Your task to perform on an android device: Open internet settings Image 0: 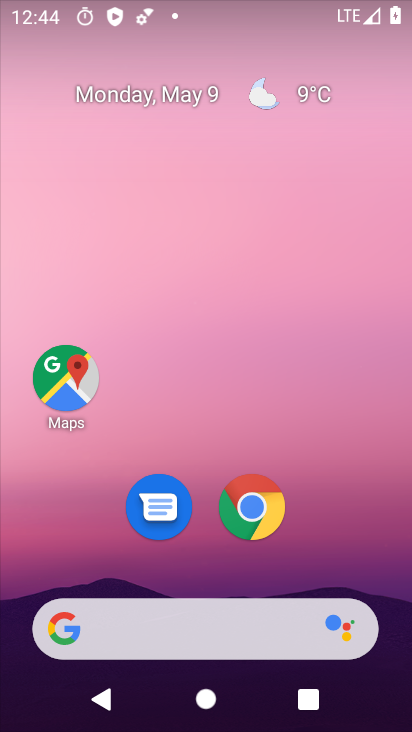
Step 0: drag from (228, 723) to (212, 14)
Your task to perform on an android device: Open internet settings Image 1: 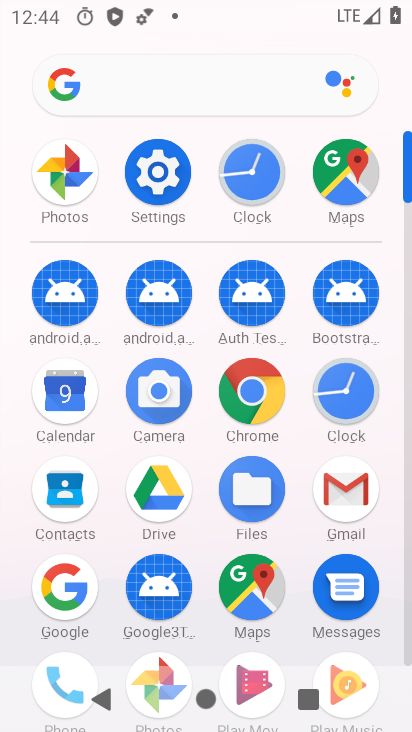
Step 1: click (167, 170)
Your task to perform on an android device: Open internet settings Image 2: 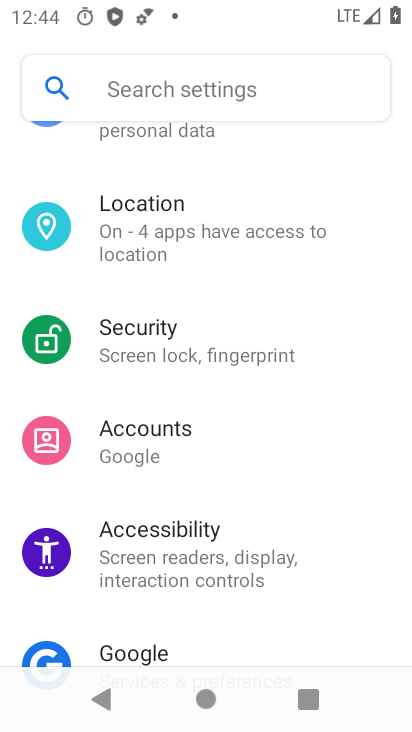
Step 2: drag from (290, 181) to (270, 590)
Your task to perform on an android device: Open internet settings Image 3: 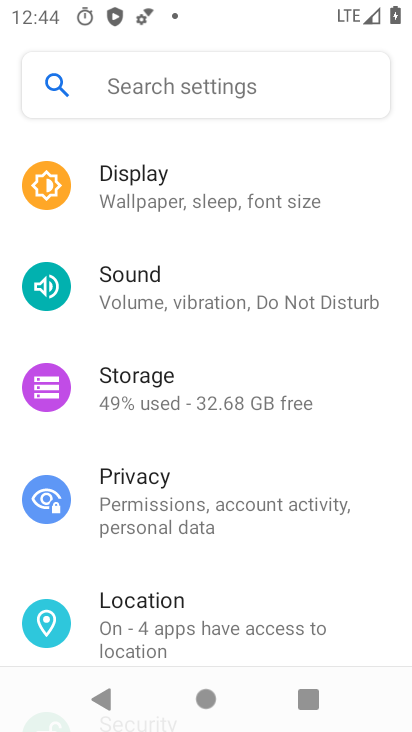
Step 3: drag from (305, 150) to (294, 380)
Your task to perform on an android device: Open internet settings Image 4: 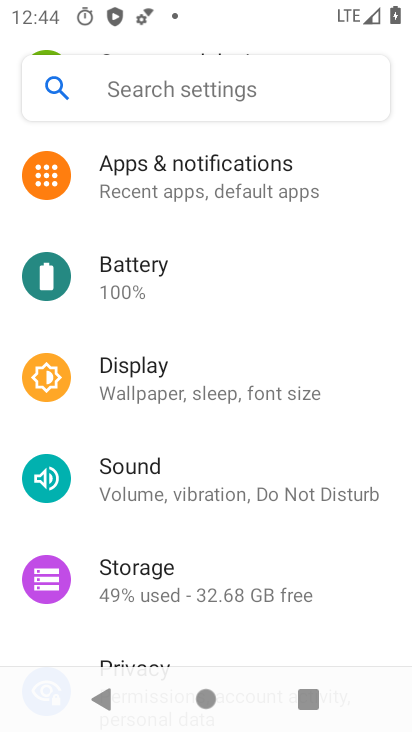
Step 4: drag from (340, 154) to (329, 483)
Your task to perform on an android device: Open internet settings Image 5: 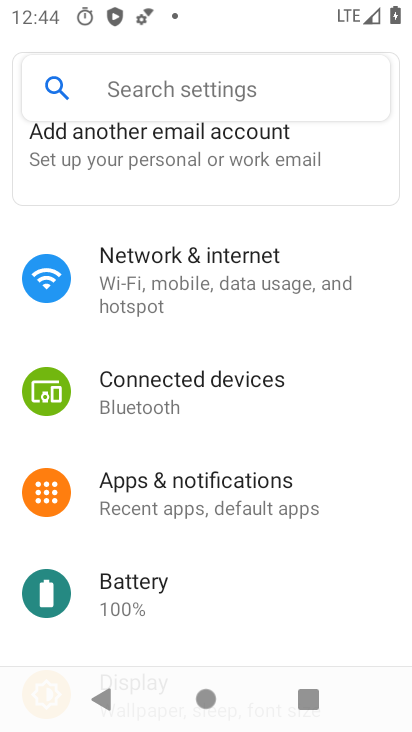
Step 5: click (163, 275)
Your task to perform on an android device: Open internet settings Image 6: 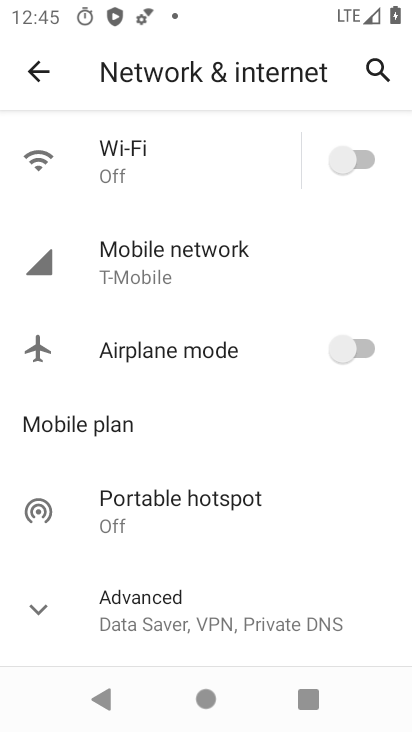
Step 6: task complete